Your task to perform on an android device: Open Amazon Image 0: 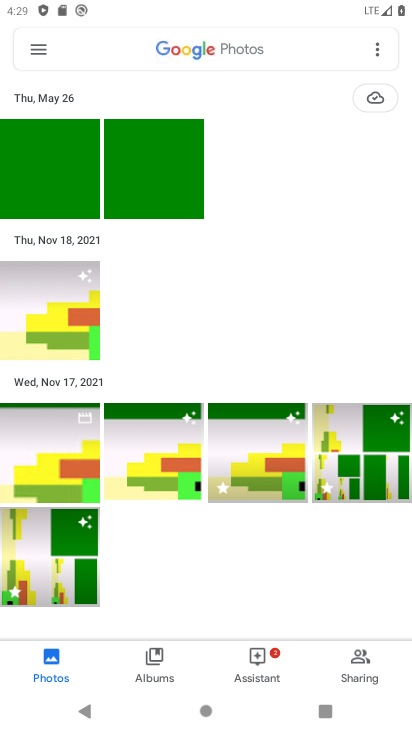
Step 0: press back button
Your task to perform on an android device: Open Amazon Image 1: 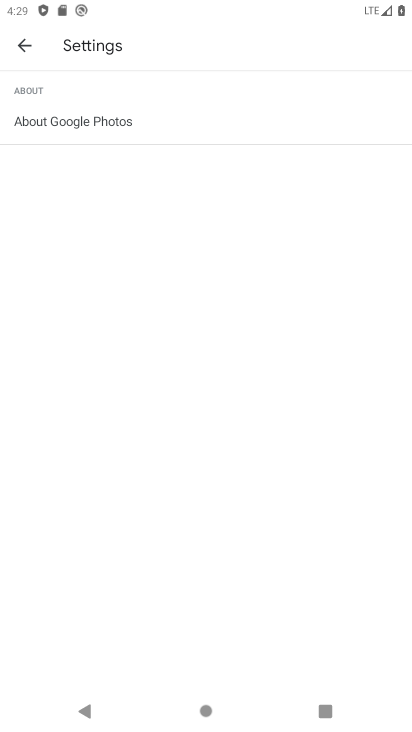
Step 1: press home button
Your task to perform on an android device: Open Amazon Image 2: 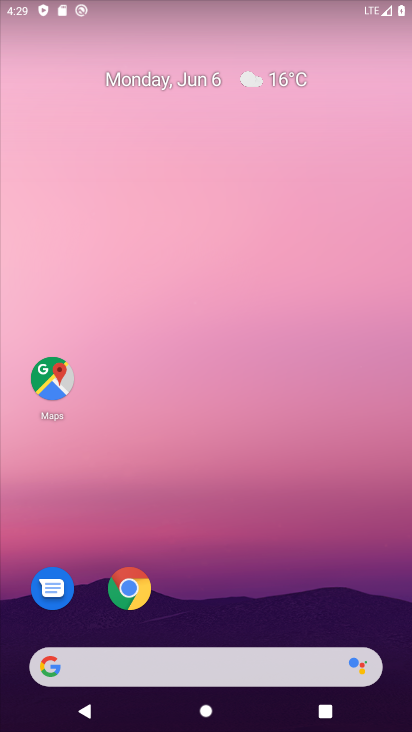
Step 2: drag from (256, 566) to (211, 161)
Your task to perform on an android device: Open Amazon Image 3: 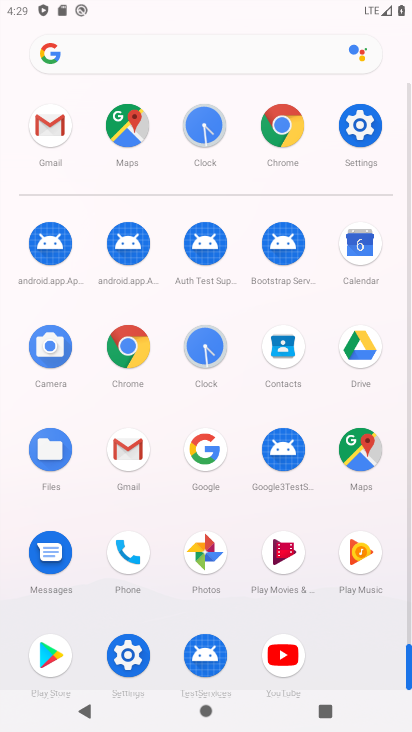
Step 3: click (282, 110)
Your task to perform on an android device: Open Amazon Image 4: 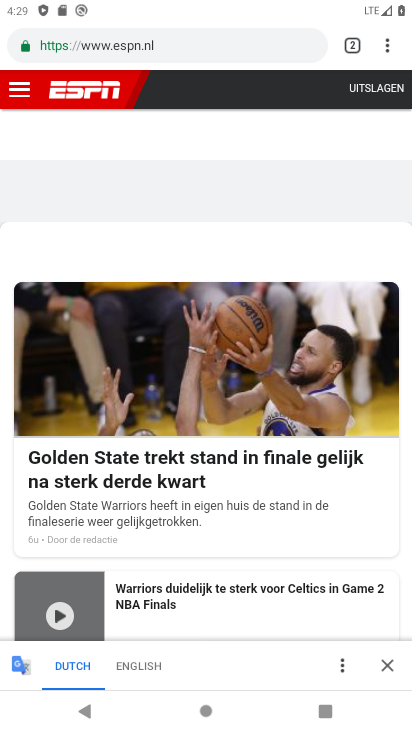
Step 4: drag from (384, 45) to (220, 130)
Your task to perform on an android device: Open Amazon Image 5: 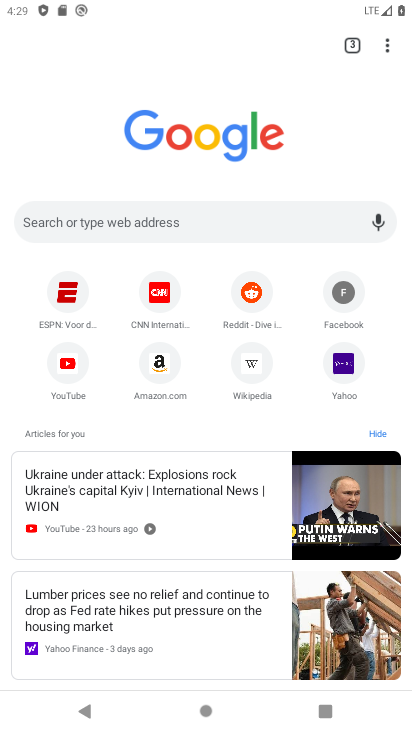
Step 5: click (160, 354)
Your task to perform on an android device: Open Amazon Image 6: 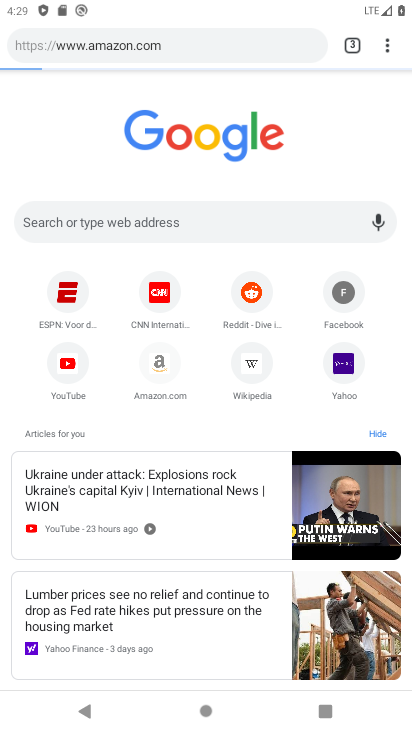
Step 6: click (160, 354)
Your task to perform on an android device: Open Amazon Image 7: 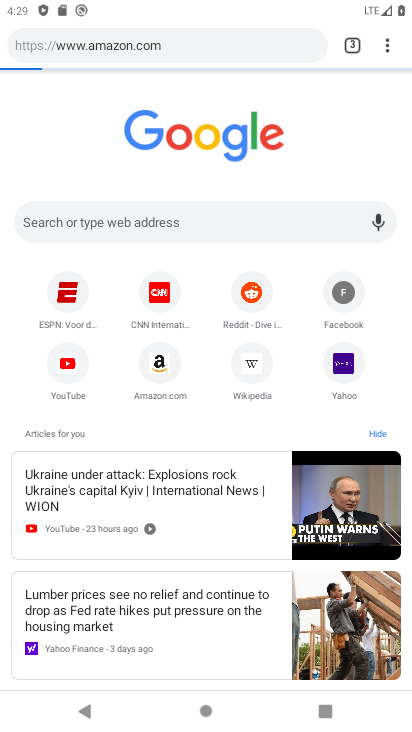
Step 7: click (160, 354)
Your task to perform on an android device: Open Amazon Image 8: 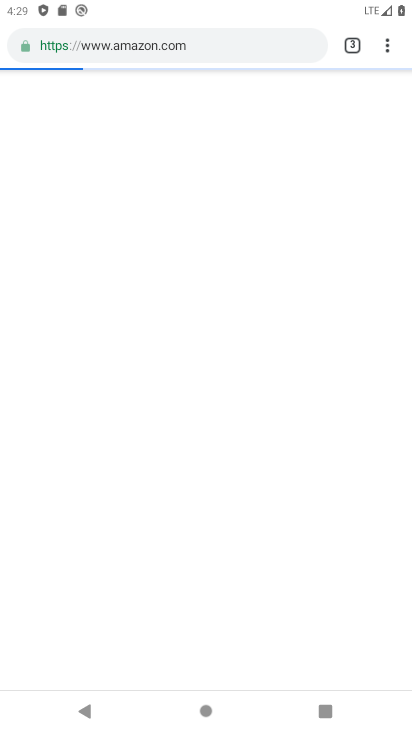
Step 8: click (159, 356)
Your task to perform on an android device: Open Amazon Image 9: 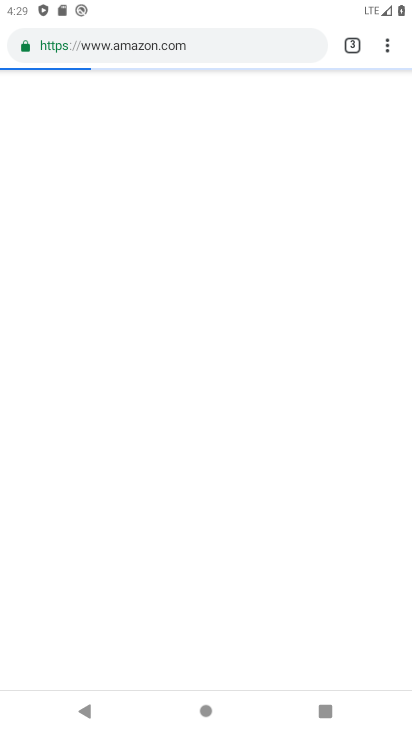
Step 9: click (159, 358)
Your task to perform on an android device: Open Amazon Image 10: 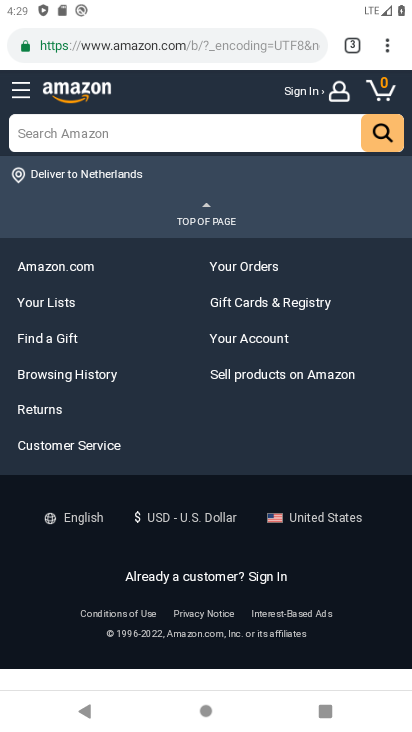
Step 10: task complete